Your task to perform on an android device: snooze an email in the gmail app Image 0: 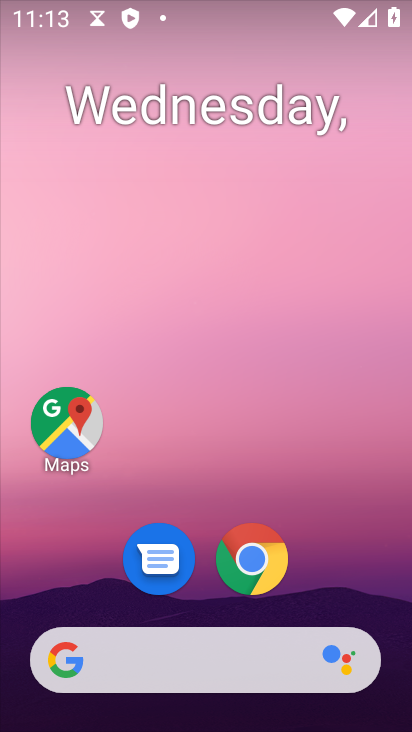
Step 0: drag from (392, 582) to (344, 164)
Your task to perform on an android device: snooze an email in the gmail app Image 1: 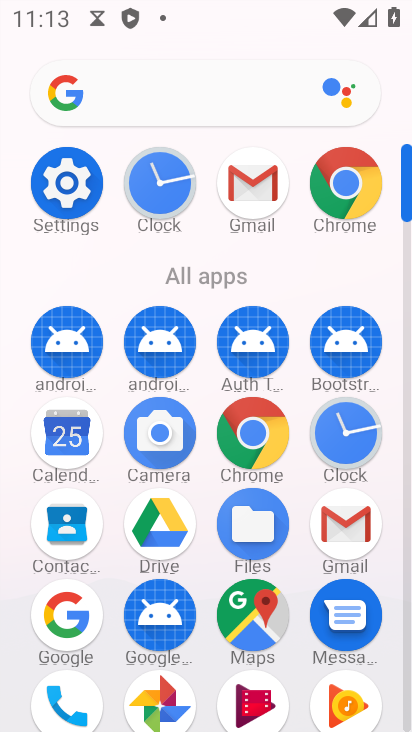
Step 1: click (258, 200)
Your task to perform on an android device: snooze an email in the gmail app Image 2: 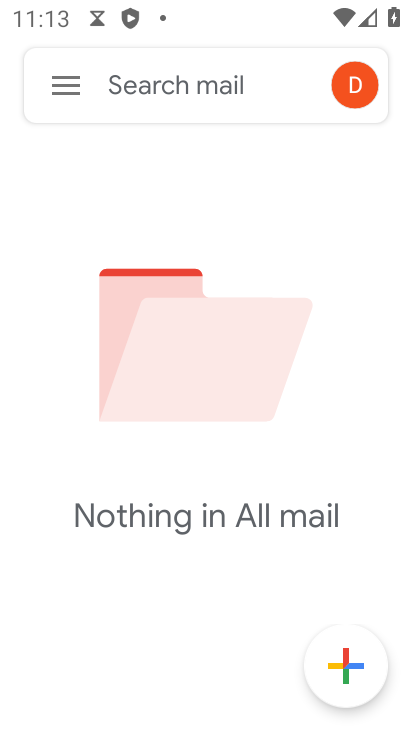
Step 2: click (70, 85)
Your task to perform on an android device: snooze an email in the gmail app Image 3: 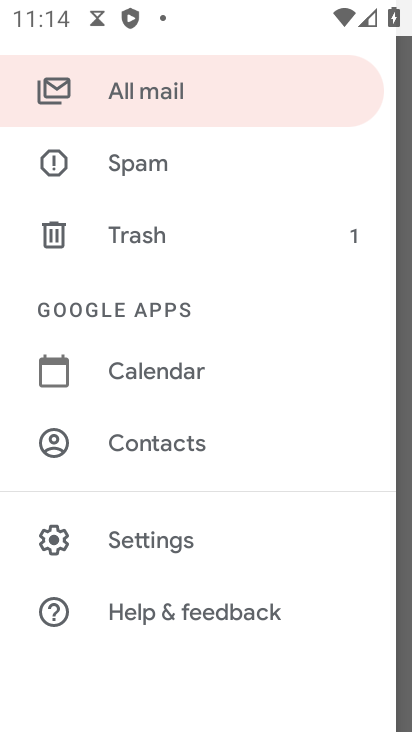
Step 3: drag from (202, 190) to (210, 429)
Your task to perform on an android device: snooze an email in the gmail app Image 4: 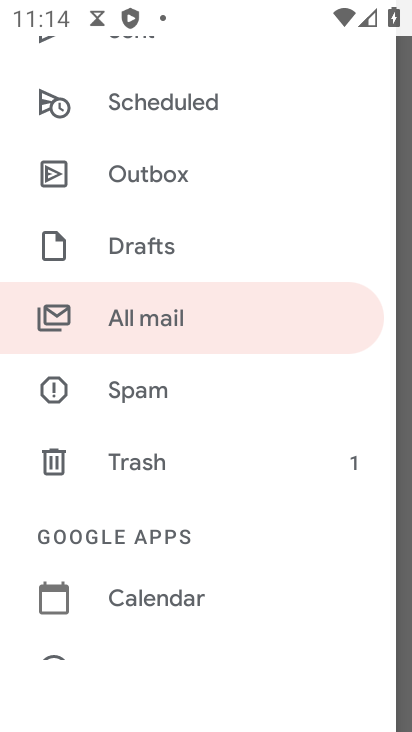
Step 4: click (199, 313)
Your task to perform on an android device: snooze an email in the gmail app Image 5: 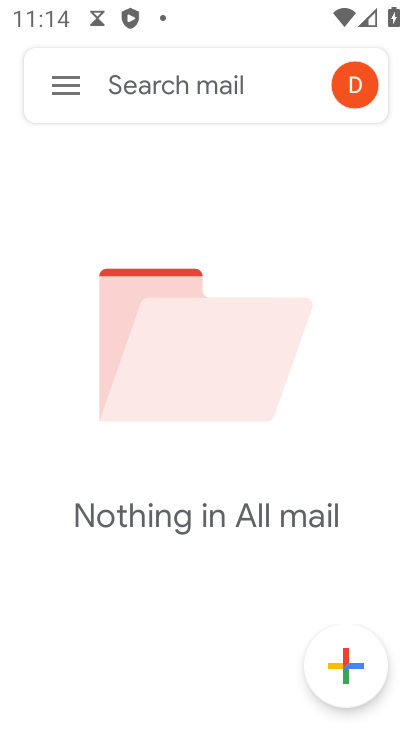
Step 5: task complete